Your task to perform on an android device: Open Google Chrome and click the shortcut for Amazon.com Image 0: 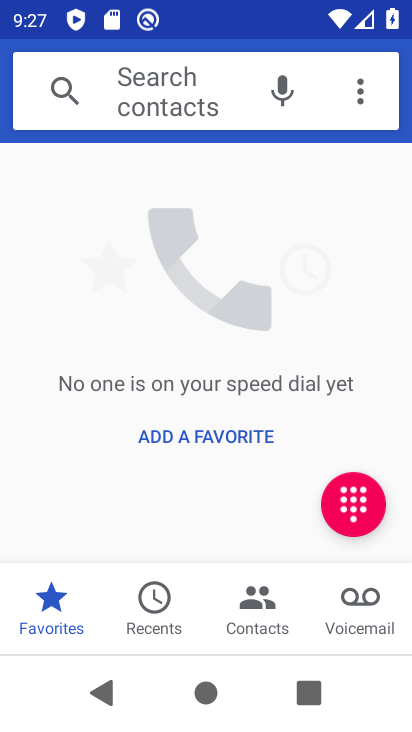
Step 0: press home button
Your task to perform on an android device: Open Google Chrome and click the shortcut for Amazon.com Image 1: 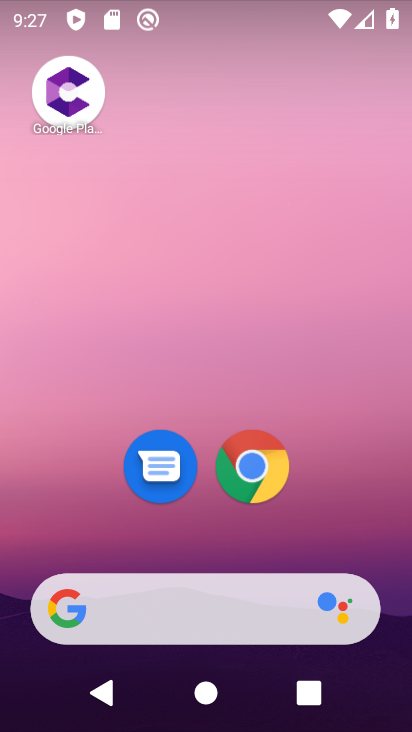
Step 1: click (252, 483)
Your task to perform on an android device: Open Google Chrome and click the shortcut for Amazon.com Image 2: 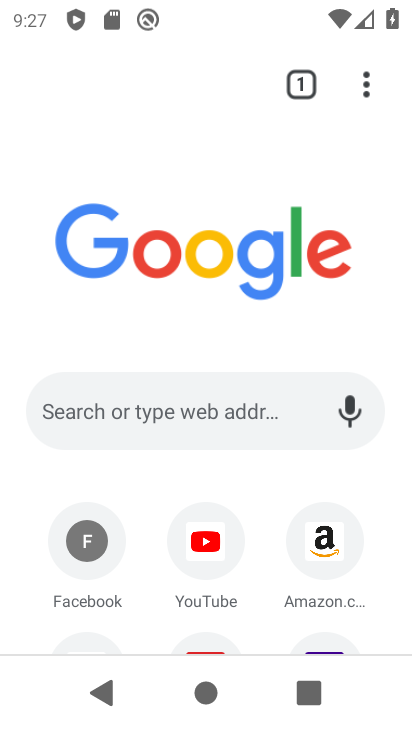
Step 2: click (307, 531)
Your task to perform on an android device: Open Google Chrome and click the shortcut for Amazon.com Image 3: 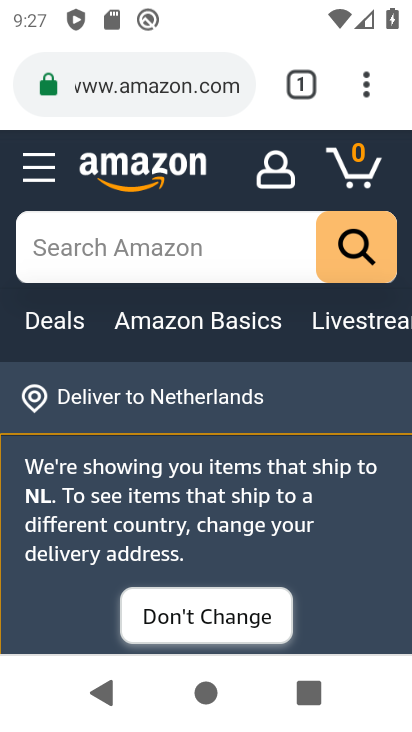
Step 3: task complete